Your task to perform on an android device: change text size in settings app Image 0: 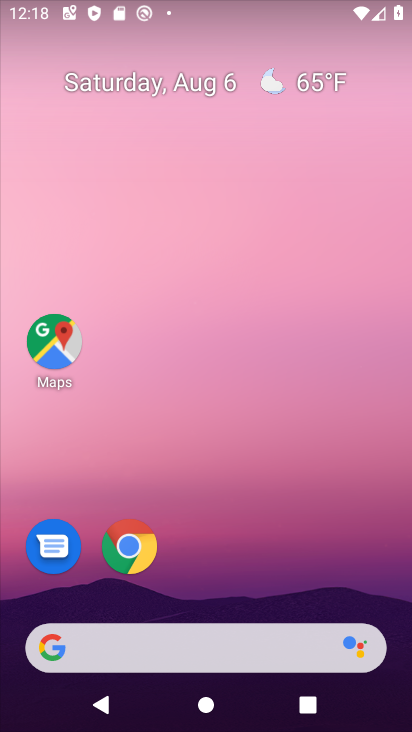
Step 0: drag from (256, 582) to (358, 4)
Your task to perform on an android device: change text size in settings app Image 1: 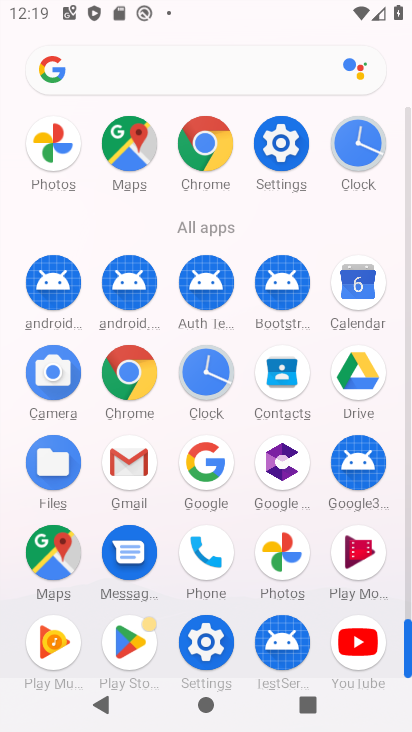
Step 1: click (222, 650)
Your task to perform on an android device: change text size in settings app Image 2: 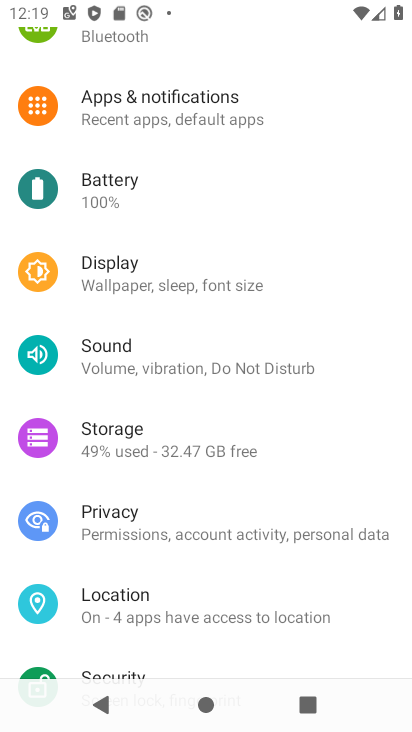
Step 2: click (189, 285)
Your task to perform on an android device: change text size in settings app Image 3: 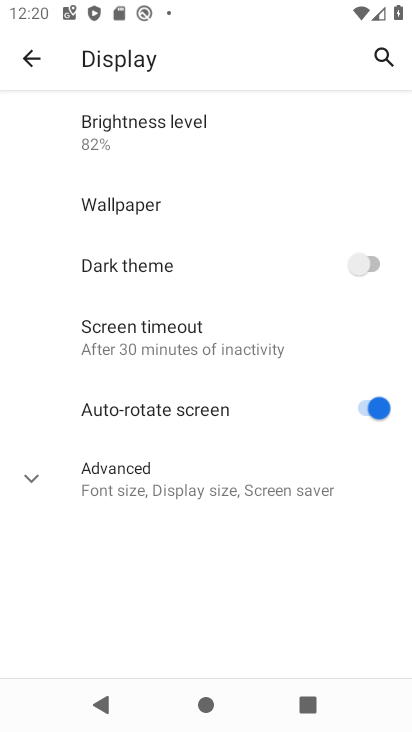
Step 3: click (112, 471)
Your task to perform on an android device: change text size in settings app Image 4: 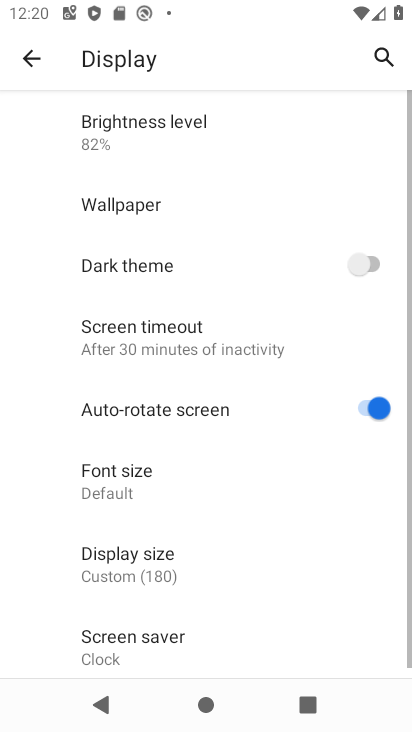
Step 4: click (136, 489)
Your task to perform on an android device: change text size in settings app Image 5: 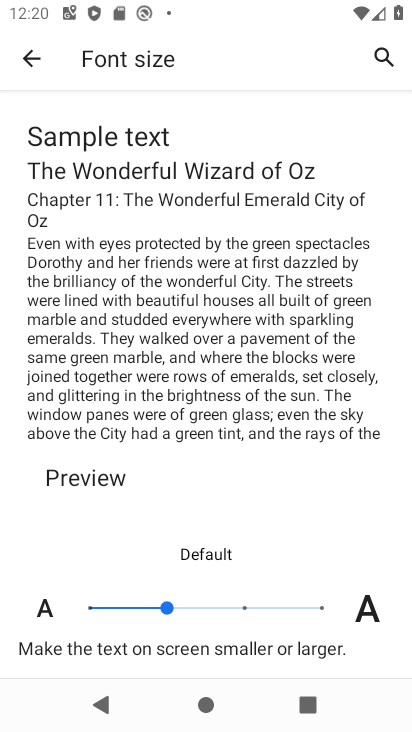
Step 5: click (259, 597)
Your task to perform on an android device: change text size in settings app Image 6: 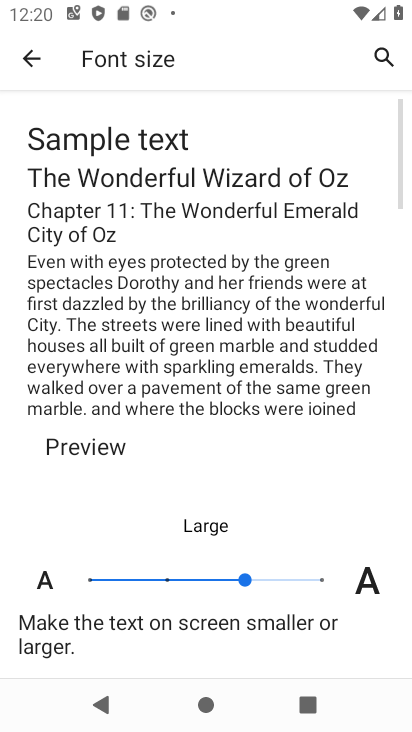
Step 6: task complete